Your task to perform on an android device: Go to eBay Image 0: 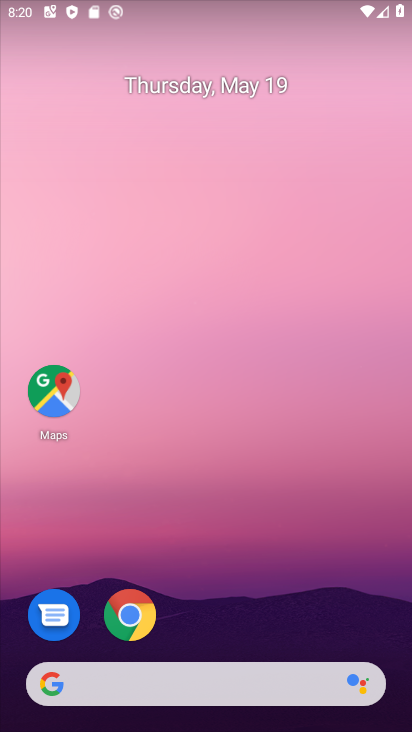
Step 0: drag from (222, 611) to (251, 117)
Your task to perform on an android device: Go to eBay Image 1: 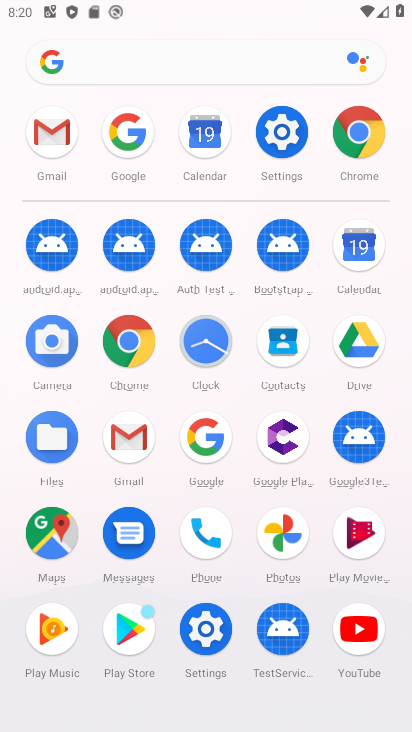
Step 1: click (127, 129)
Your task to perform on an android device: Go to eBay Image 2: 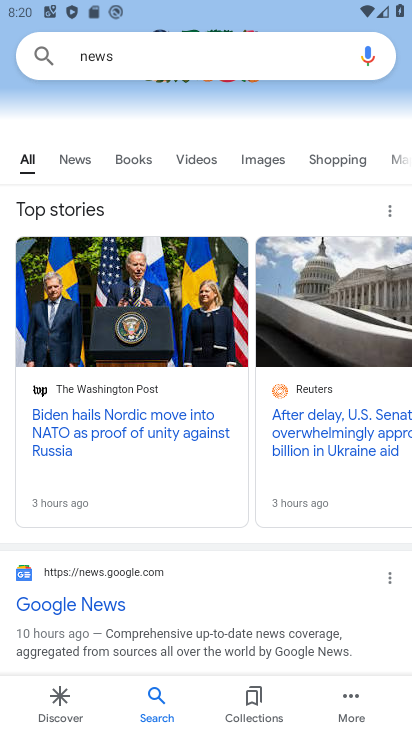
Step 2: click (201, 48)
Your task to perform on an android device: Go to eBay Image 3: 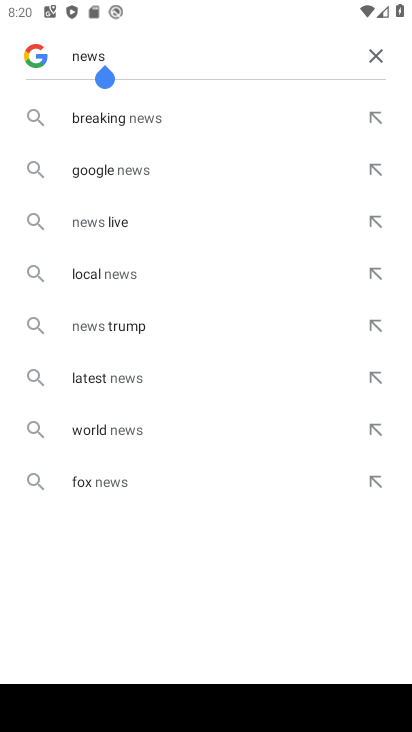
Step 3: click (368, 62)
Your task to perform on an android device: Go to eBay Image 4: 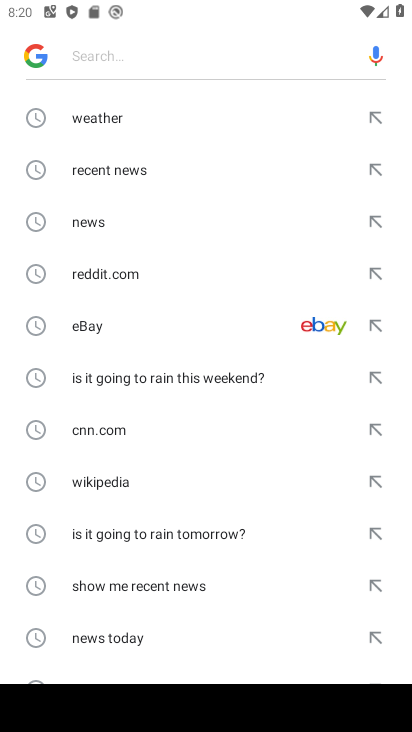
Step 4: click (100, 316)
Your task to perform on an android device: Go to eBay Image 5: 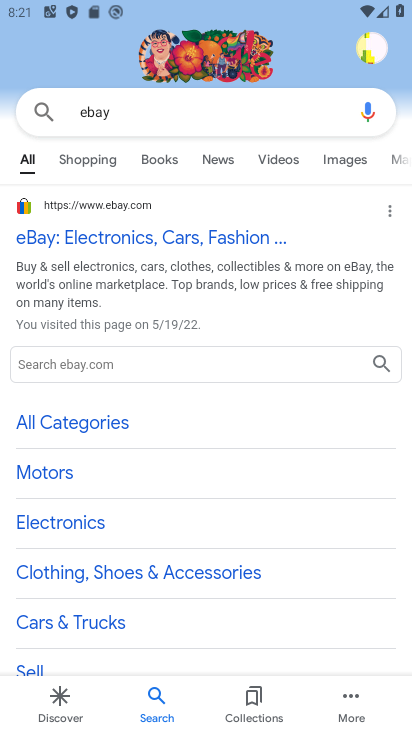
Step 5: task complete